Your task to perform on an android device: Go to privacy settings Image 0: 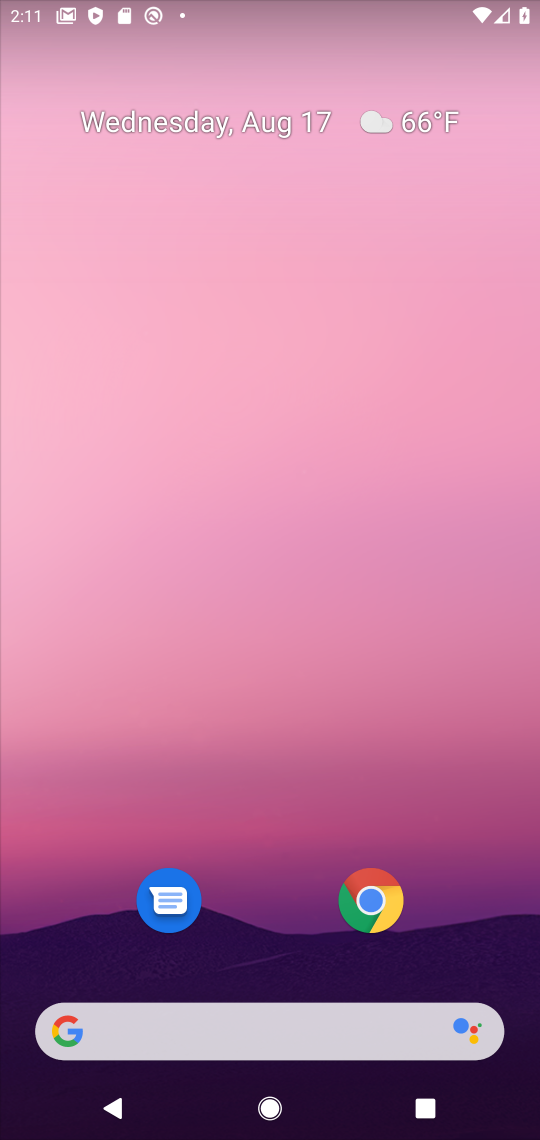
Step 0: press home button
Your task to perform on an android device: Go to privacy settings Image 1: 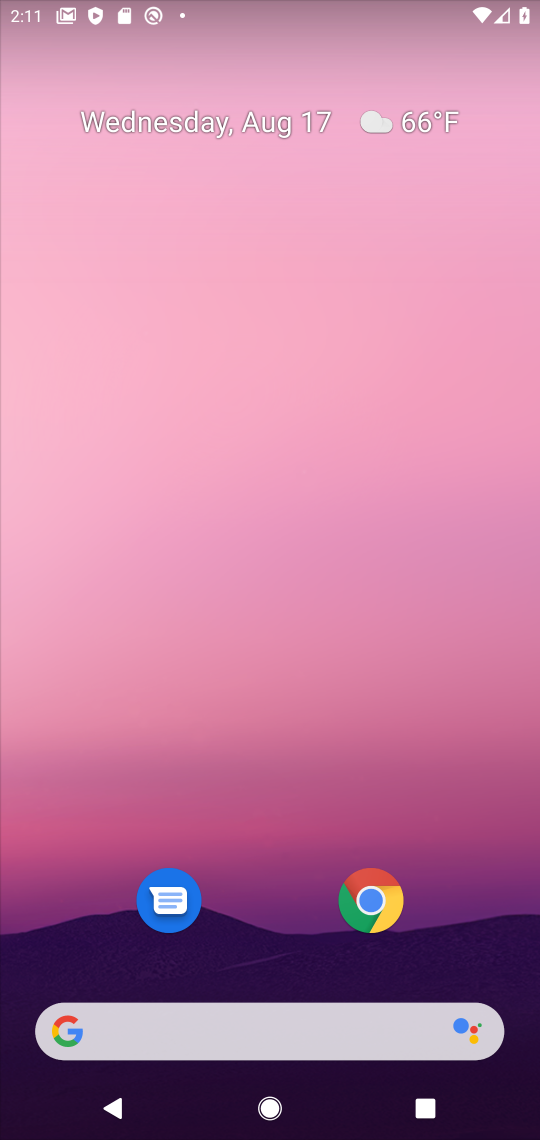
Step 1: drag from (290, 1020) to (532, 117)
Your task to perform on an android device: Go to privacy settings Image 2: 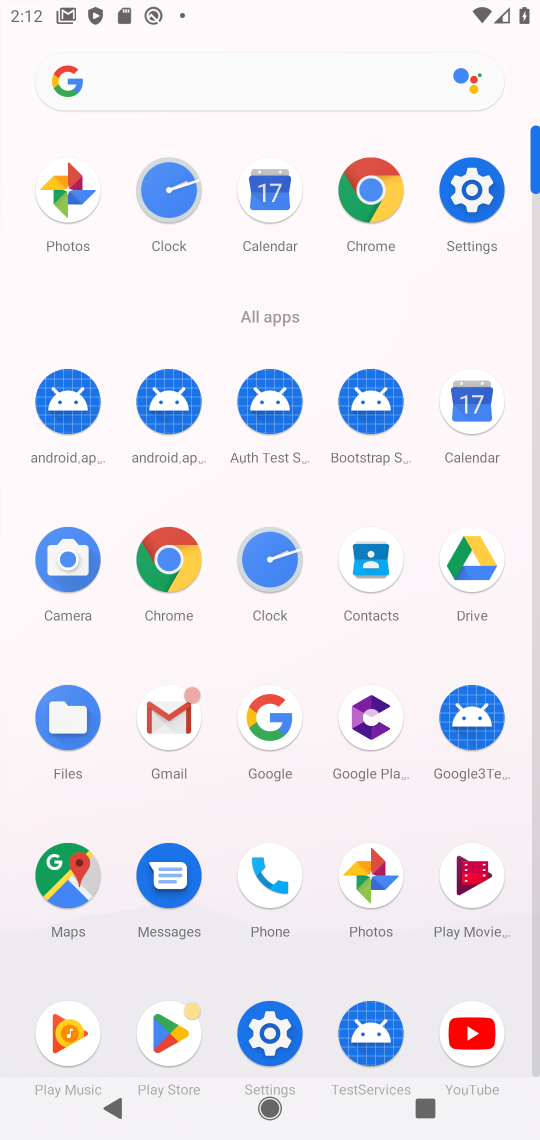
Step 2: click (473, 202)
Your task to perform on an android device: Go to privacy settings Image 3: 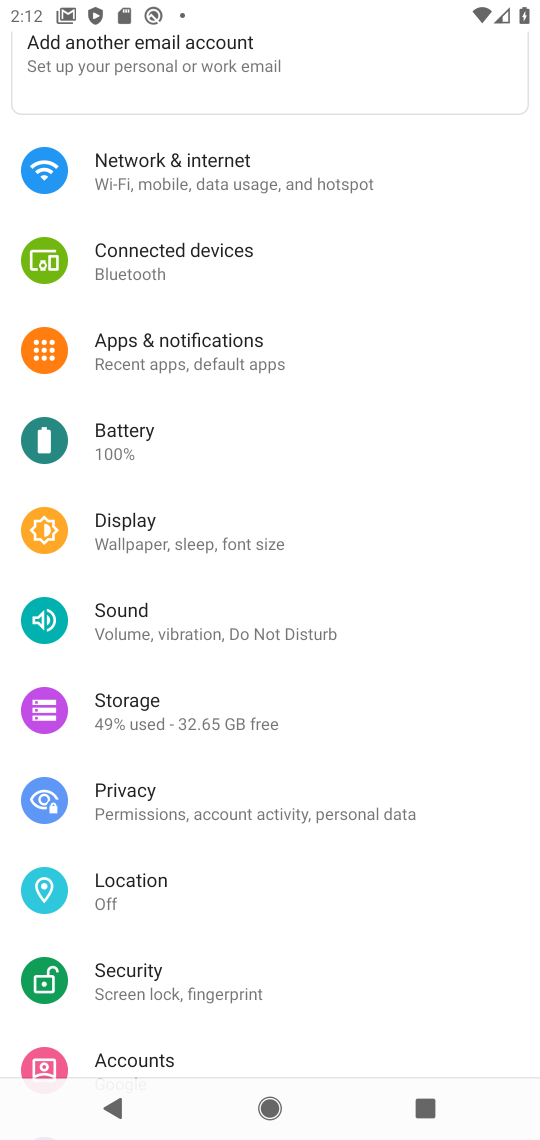
Step 3: click (126, 810)
Your task to perform on an android device: Go to privacy settings Image 4: 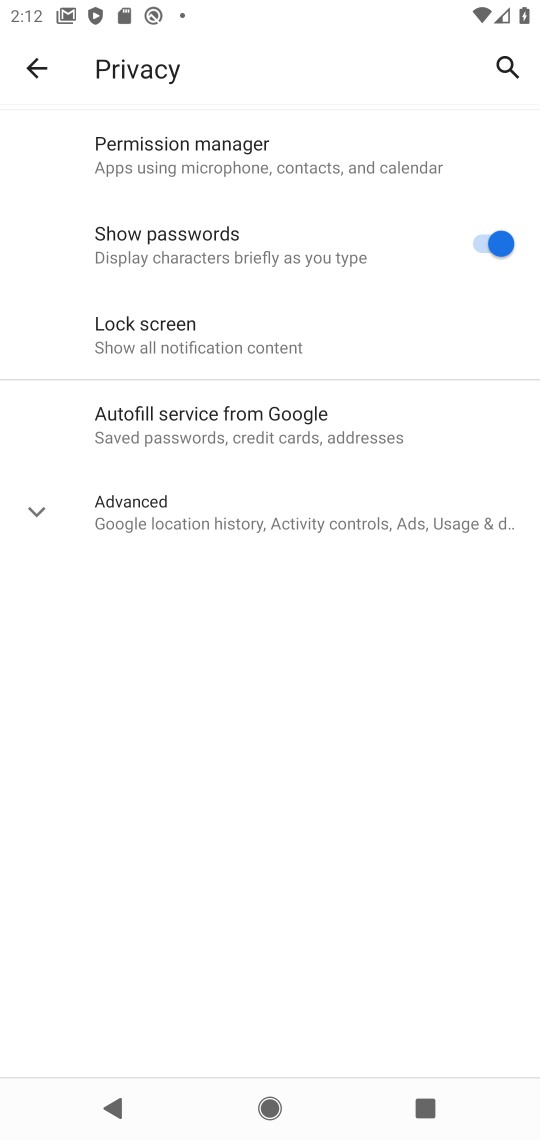
Step 4: task complete